Your task to perform on an android device: see creations saved in the google photos Image 0: 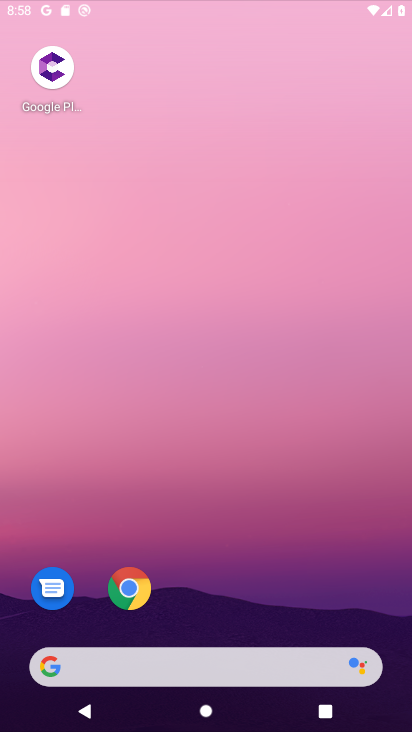
Step 0: press back button
Your task to perform on an android device: see creations saved in the google photos Image 1: 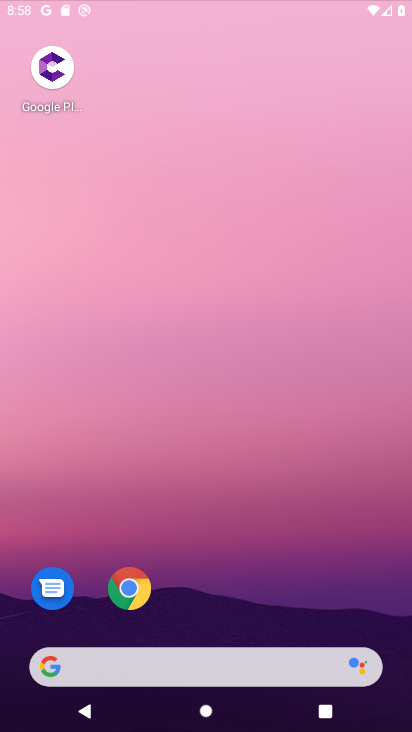
Step 1: click (241, 209)
Your task to perform on an android device: see creations saved in the google photos Image 2: 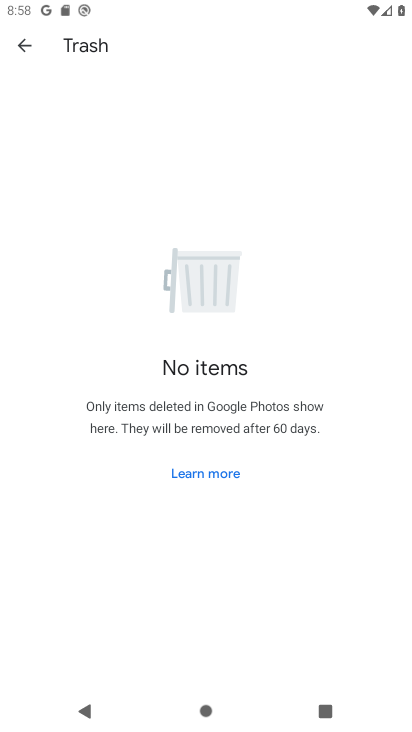
Step 2: drag from (212, 601) to (163, 344)
Your task to perform on an android device: see creations saved in the google photos Image 3: 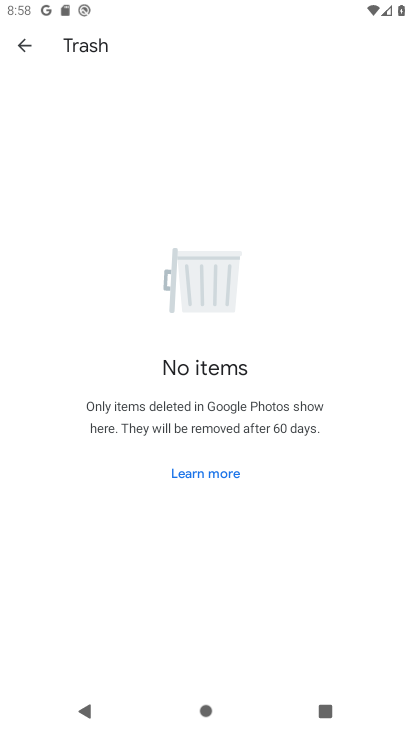
Step 3: click (21, 35)
Your task to perform on an android device: see creations saved in the google photos Image 4: 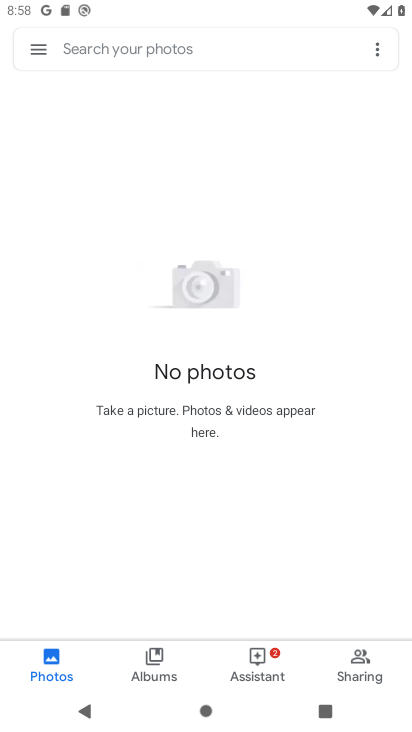
Step 4: click (51, 658)
Your task to perform on an android device: see creations saved in the google photos Image 5: 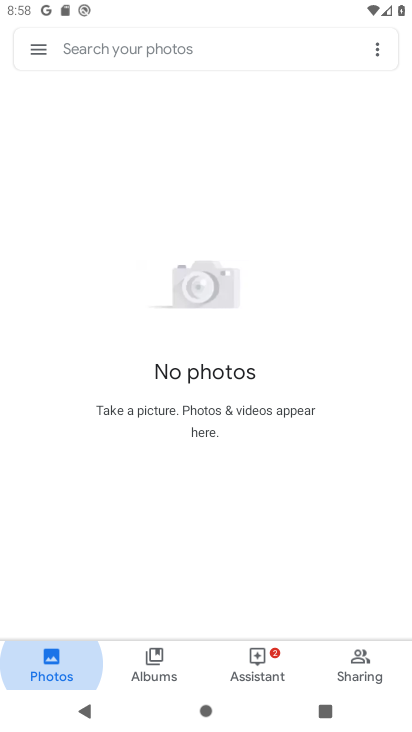
Step 5: click (52, 657)
Your task to perform on an android device: see creations saved in the google photos Image 6: 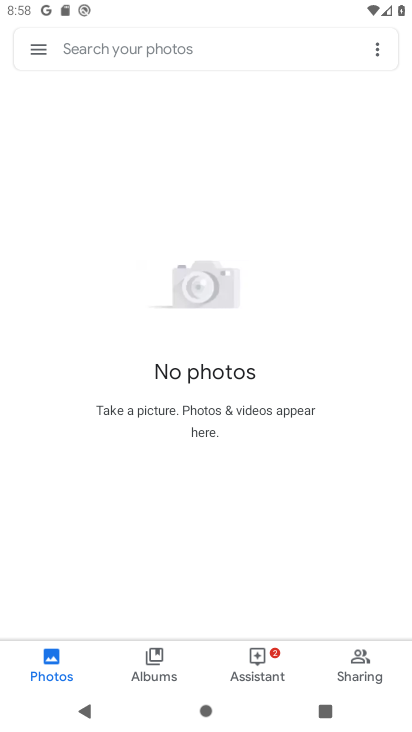
Step 6: click (52, 657)
Your task to perform on an android device: see creations saved in the google photos Image 7: 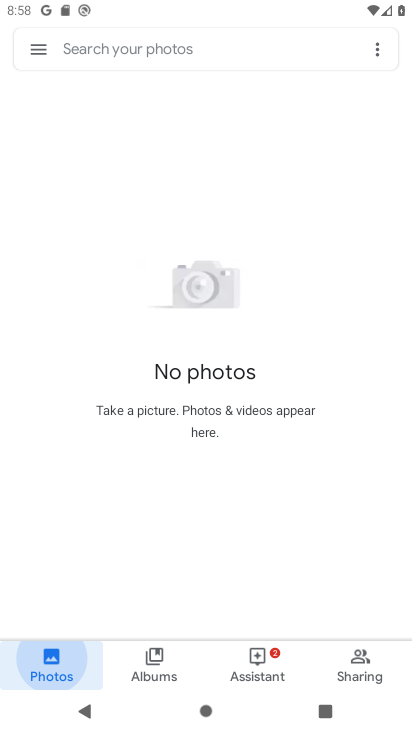
Step 7: click (52, 657)
Your task to perform on an android device: see creations saved in the google photos Image 8: 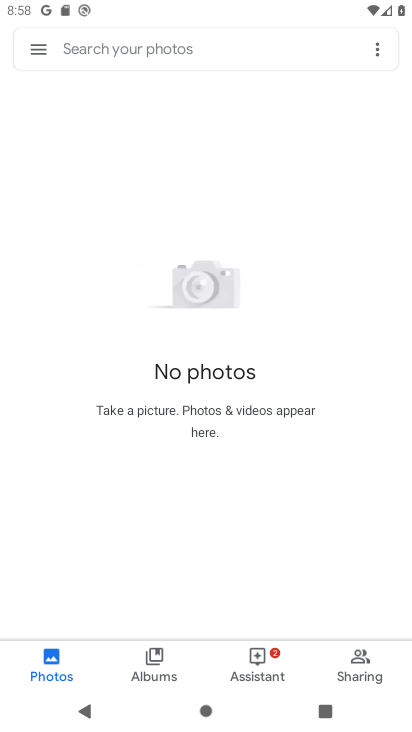
Step 8: task complete